Your task to perform on an android device: check out phone information Image 0: 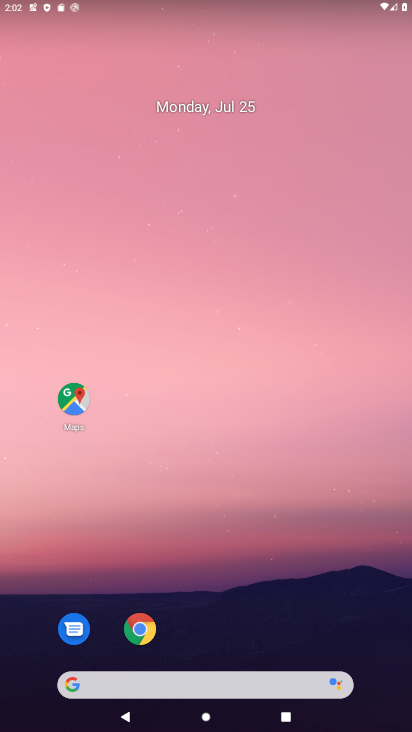
Step 0: drag from (225, 648) to (232, 13)
Your task to perform on an android device: check out phone information Image 1: 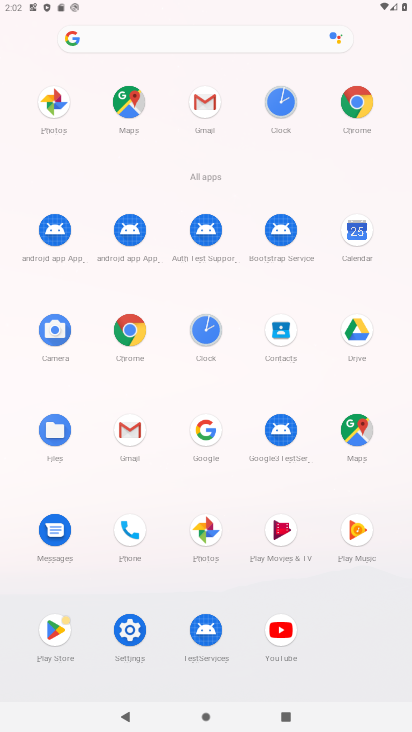
Step 1: click (127, 645)
Your task to perform on an android device: check out phone information Image 2: 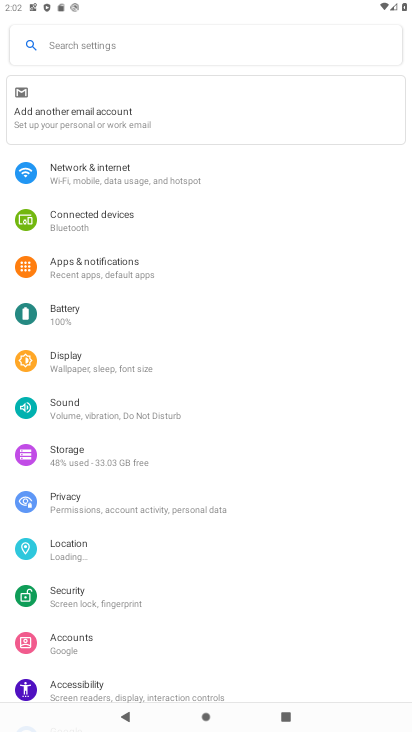
Step 2: drag from (127, 576) to (145, 230)
Your task to perform on an android device: check out phone information Image 3: 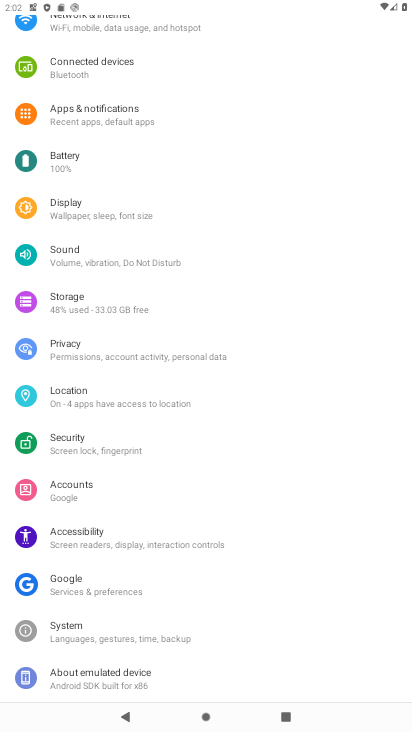
Step 3: click (109, 460)
Your task to perform on an android device: check out phone information Image 4: 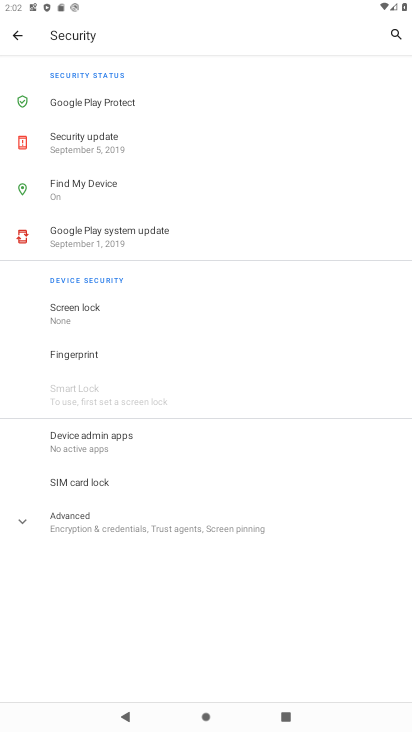
Step 4: click (14, 44)
Your task to perform on an android device: check out phone information Image 5: 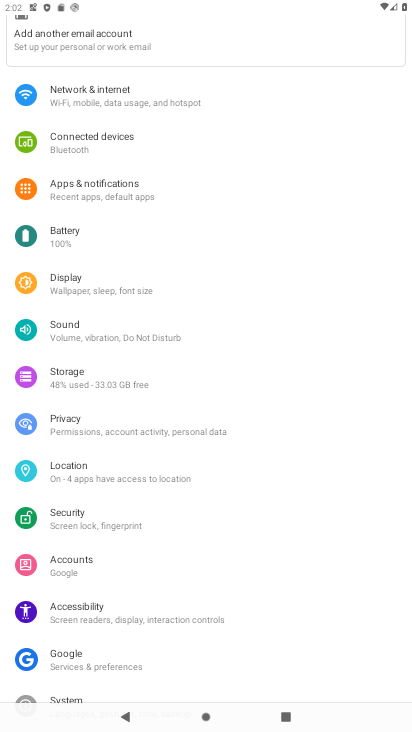
Step 5: drag from (130, 683) to (166, 115)
Your task to perform on an android device: check out phone information Image 6: 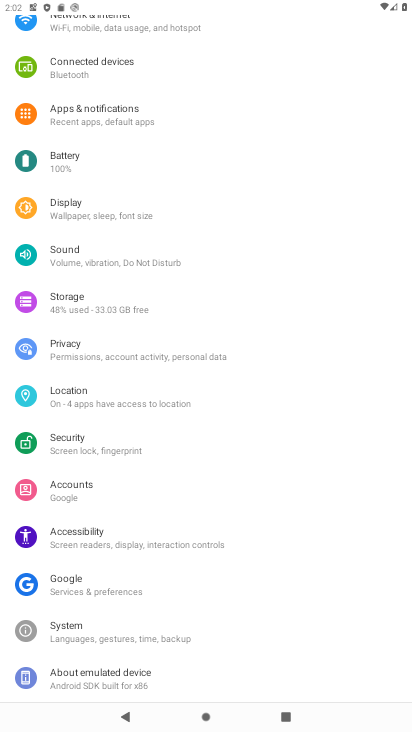
Step 6: click (111, 674)
Your task to perform on an android device: check out phone information Image 7: 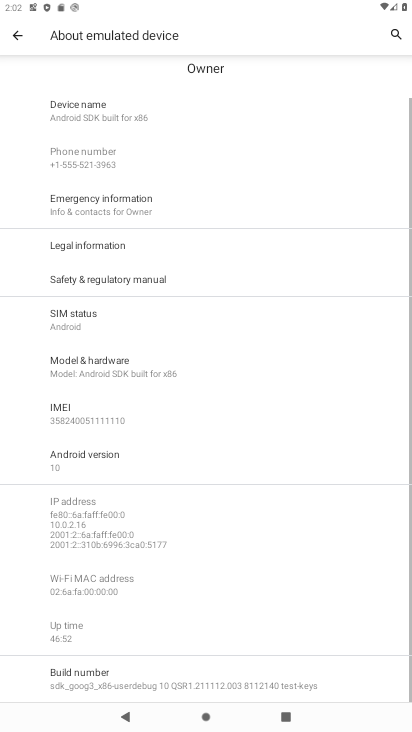
Step 7: task complete